Your task to perform on an android device: Go to Reddit.com Image 0: 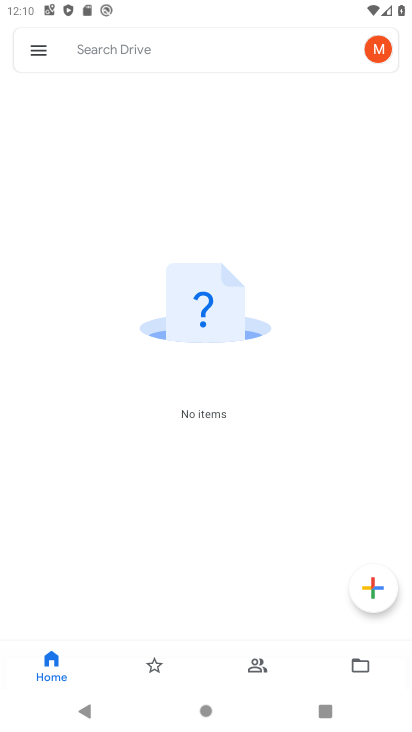
Step 0: press home button
Your task to perform on an android device: Go to Reddit.com Image 1: 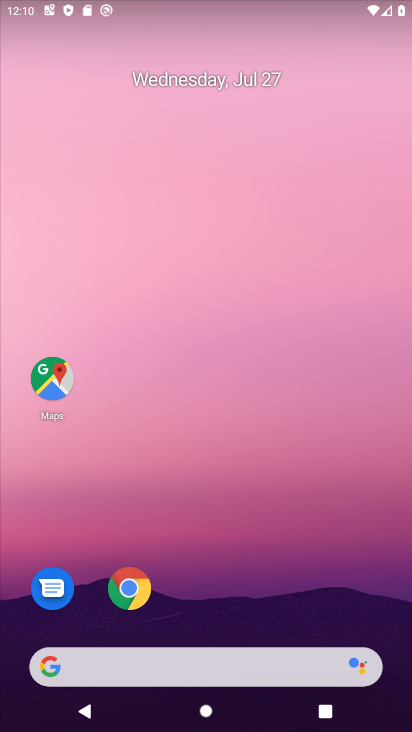
Step 1: click (104, 672)
Your task to perform on an android device: Go to Reddit.com Image 2: 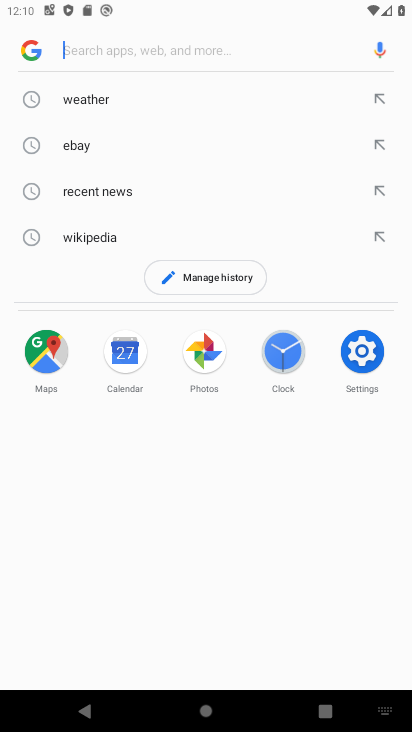
Step 2: type "Reddit.com"
Your task to perform on an android device: Go to Reddit.com Image 3: 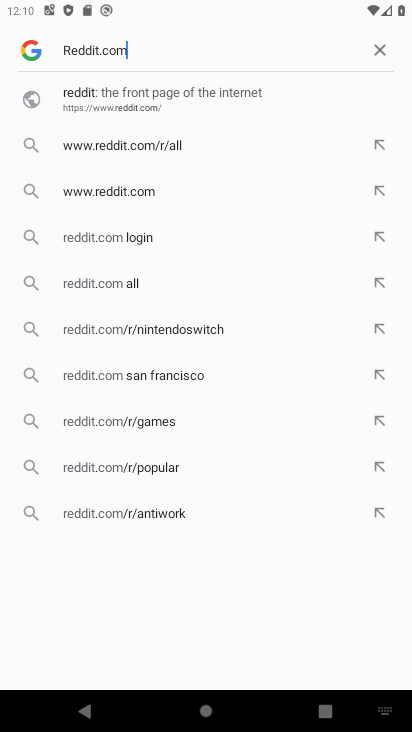
Step 3: task complete